Your task to perform on an android device: Open the web browser Image 0: 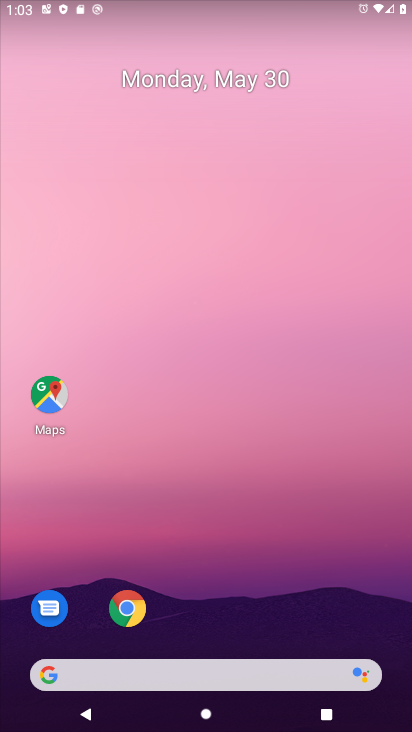
Step 0: click (142, 606)
Your task to perform on an android device: Open the web browser Image 1: 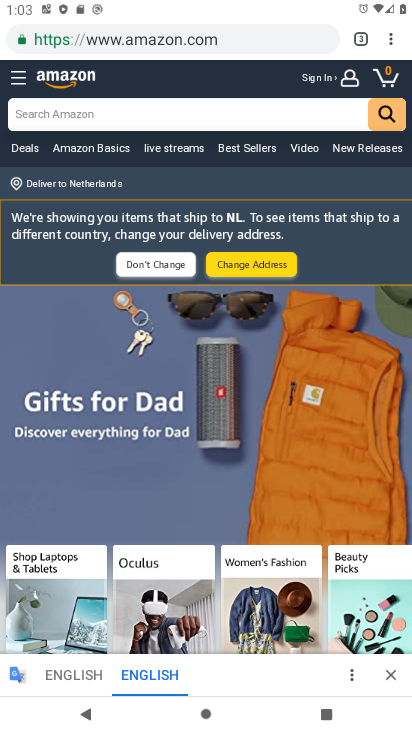
Step 1: task complete